Your task to perform on an android device: Open the stopwatch Image 0: 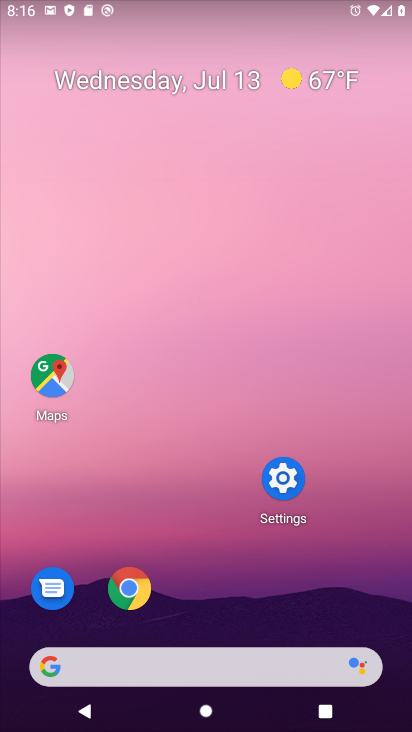
Step 0: drag from (264, 679) to (180, 97)
Your task to perform on an android device: Open the stopwatch Image 1: 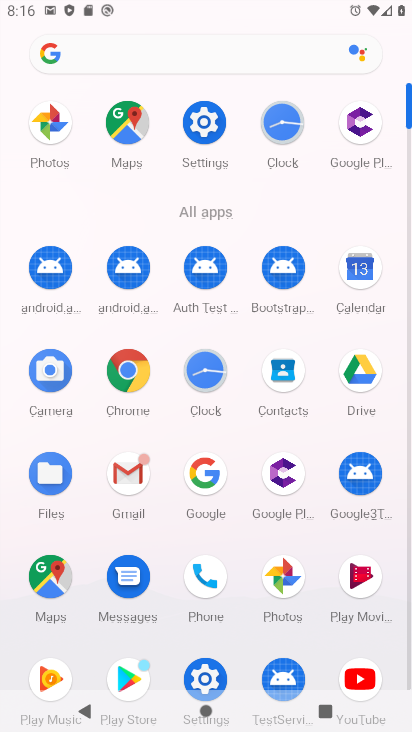
Step 1: click (194, 380)
Your task to perform on an android device: Open the stopwatch Image 2: 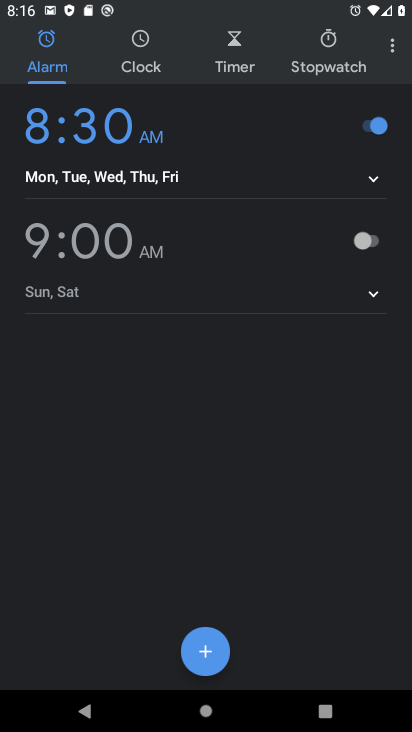
Step 2: click (297, 47)
Your task to perform on an android device: Open the stopwatch Image 3: 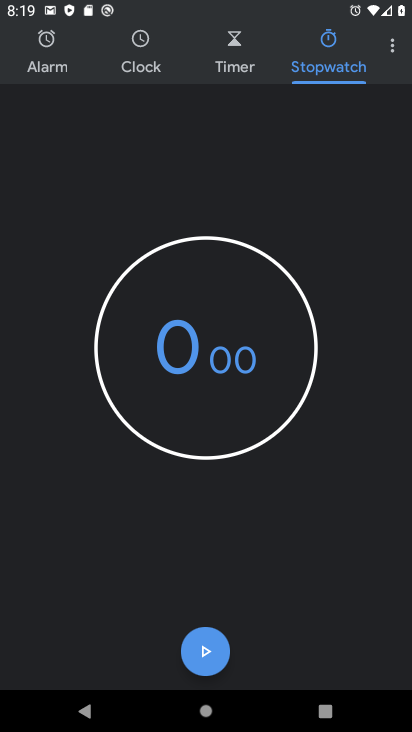
Step 3: task complete